Your task to perform on an android device: toggle priority inbox in the gmail app Image 0: 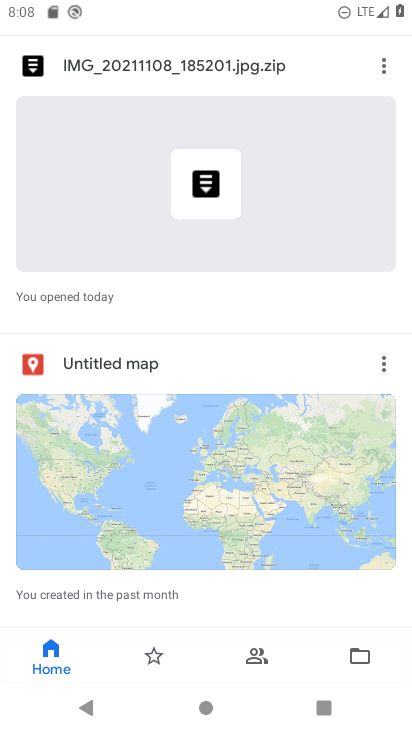
Step 0: drag from (202, 652) to (409, 241)
Your task to perform on an android device: toggle priority inbox in the gmail app Image 1: 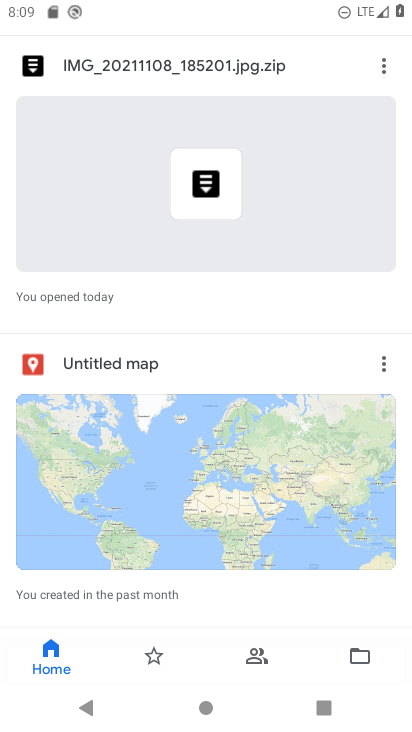
Step 1: drag from (67, 109) to (317, 634)
Your task to perform on an android device: toggle priority inbox in the gmail app Image 2: 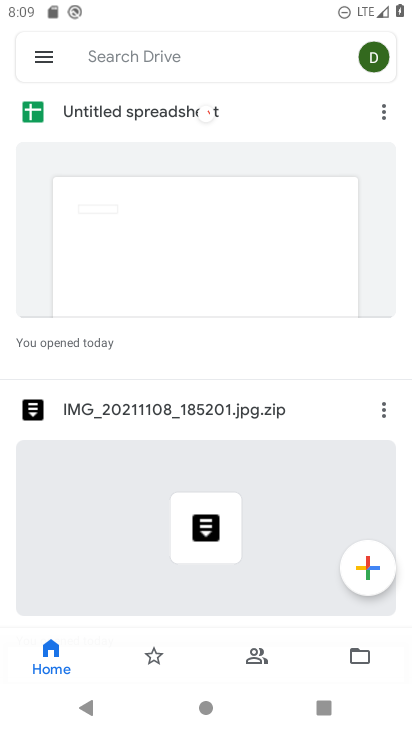
Step 2: press home button
Your task to perform on an android device: toggle priority inbox in the gmail app Image 3: 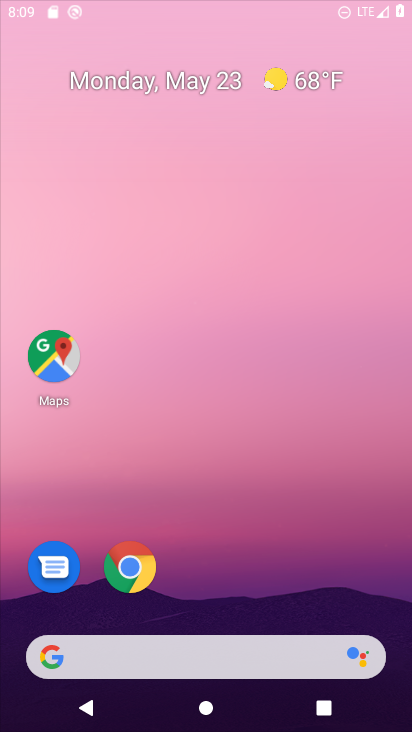
Step 3: drag from (223, 575) to (408, 120)
Your task to perform on an android device: toggle priority inbox in the gmail app Image 4: 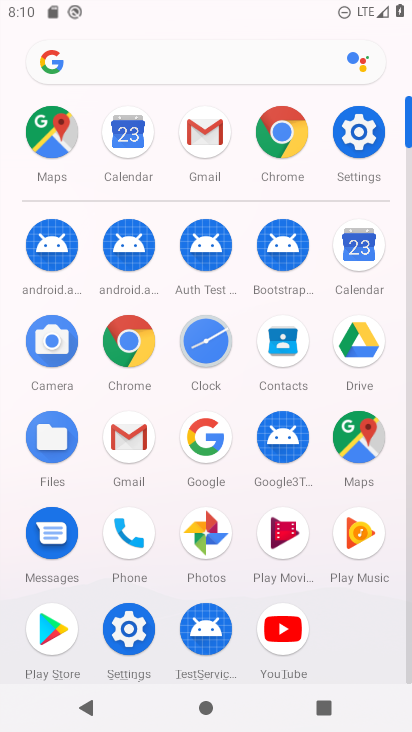
Step 4: click (118, 432)
Your task to perform on an android device: toggle priority inbox in the gmail app Image 5: 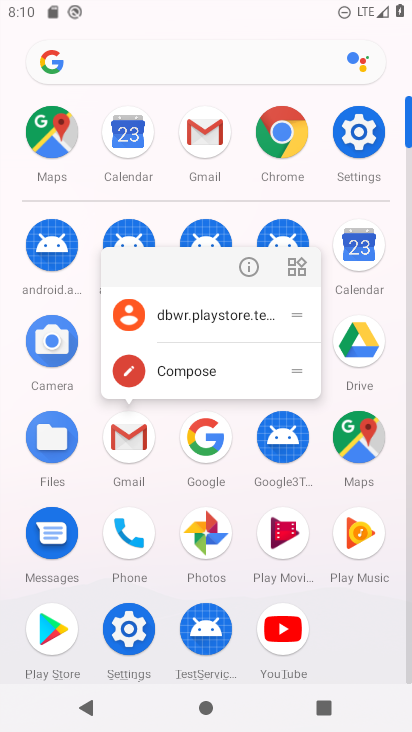
Step 5: click (190, 304)
Your task to perform on an android device: toggle priority inbox in the gmail app Image 6: 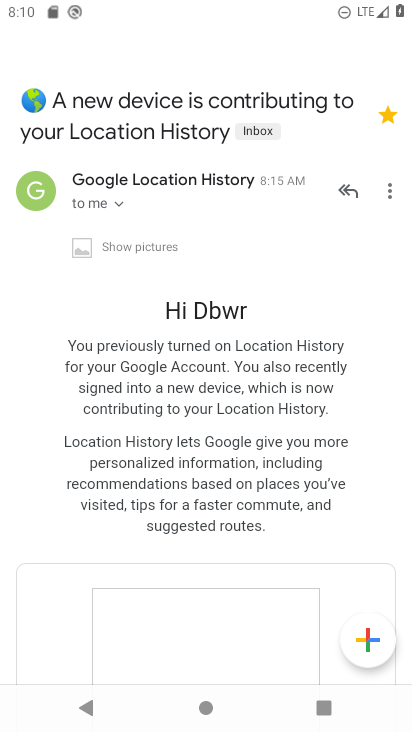
Step 6: drag from (116, 167) to (171, 439)
Your task to perform on an android device: toggle priority inbox in the gmail app Image 7: 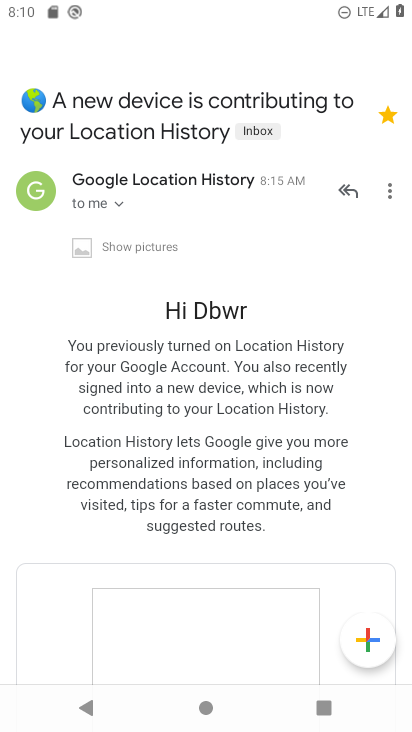
Step 7: press back button
Your task to perform on an android device: toggle priority inbox in the gmail app Image 8: 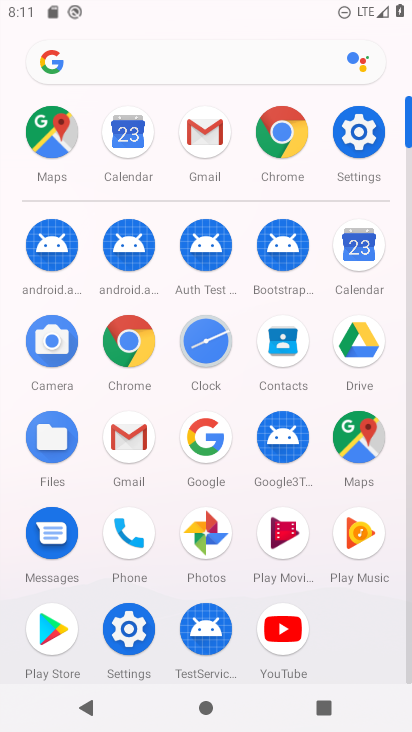
Step 8: click (140, 453)
Your task to perform on an android device: toggle priority inbox in the gmail app Image 9: 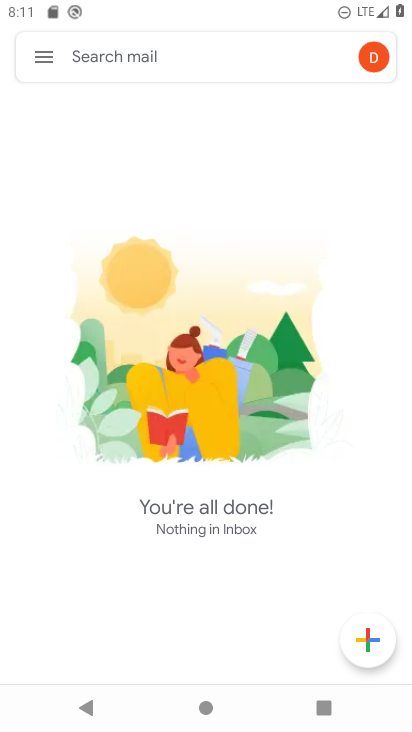
Step 9: click (35, 55)
Your task to perform on an android device: toggle priority inbox in the gmail app Image 10: 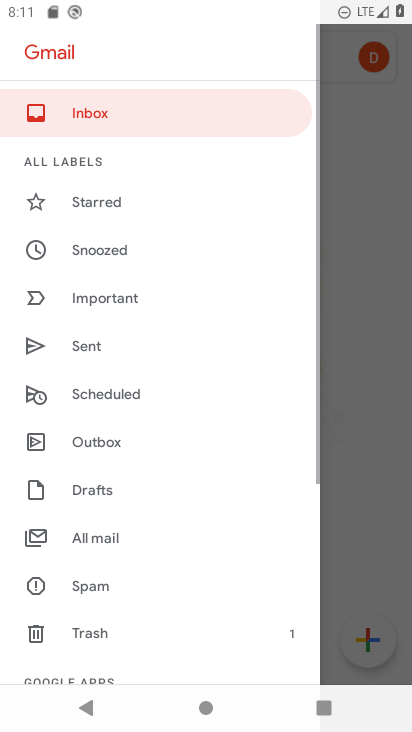
Step 10: drag from (156, 648) to (277, 72)
Your task to perform on an android device: toggle priority inbox in the gmail app Image 11: 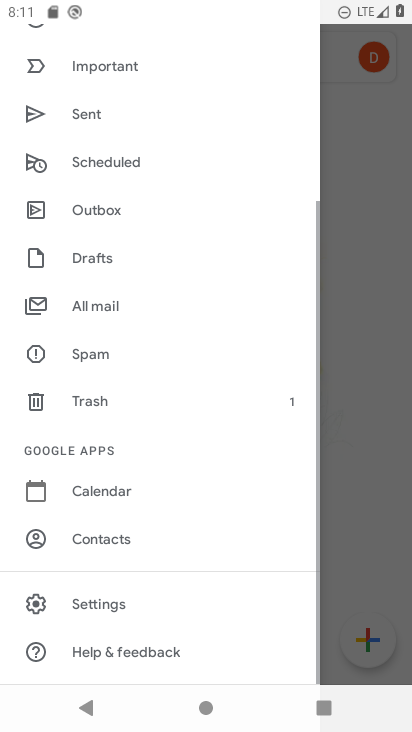
Step 11: click (58, 617)
Your task to perform on an android device: toggle priority inbox in the gmail app Image 12: 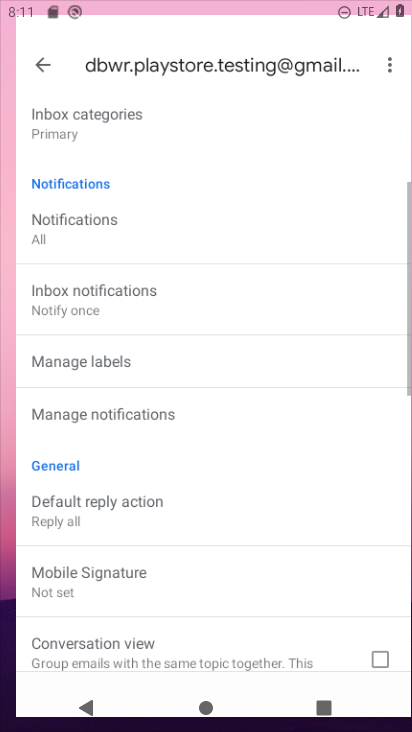
Step 12: drag from (66, 603) to (237, 189)
Your task to perform on an android device: toggle priority inbox in the gmail app Image 13: 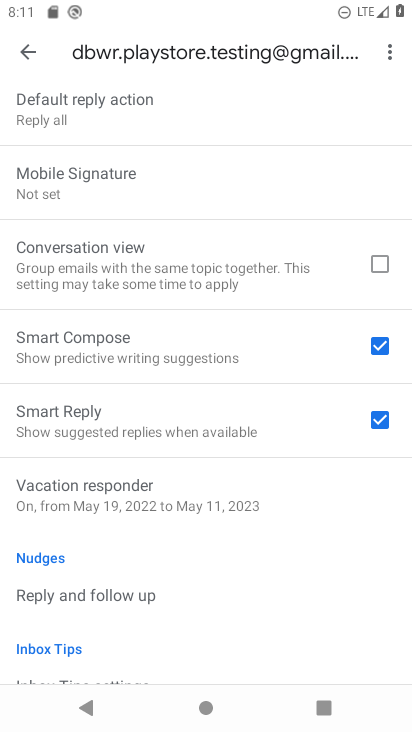
Step 13: drag from (285, 196) to (292, 731)
Your task to perform on an android device: toggle priority inbox in the gmail app Image 14: 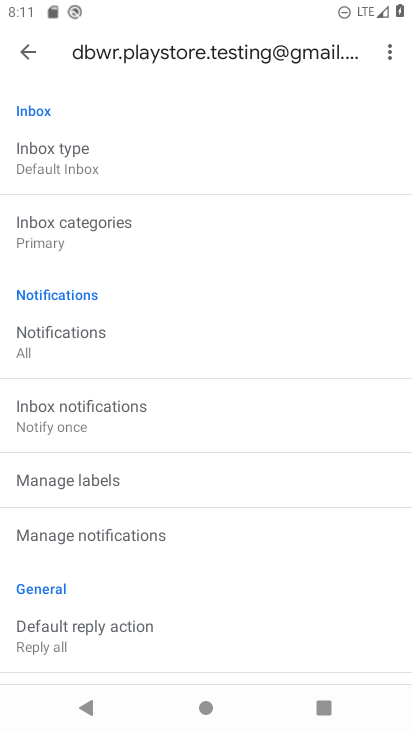
Step 14: click (105, 230)
Your task to perform on an android device: toggle priority inbox in the gmail app Image 15: 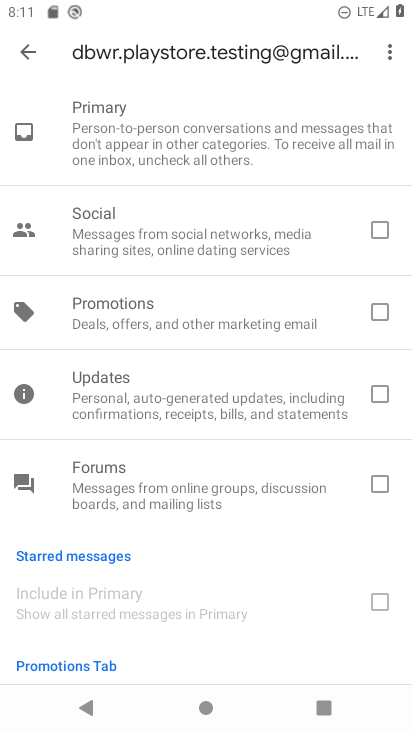
Step 15: click (19, 35)
Your task to perform on an android device: toggle priority inbox in the gmail app Image 16: 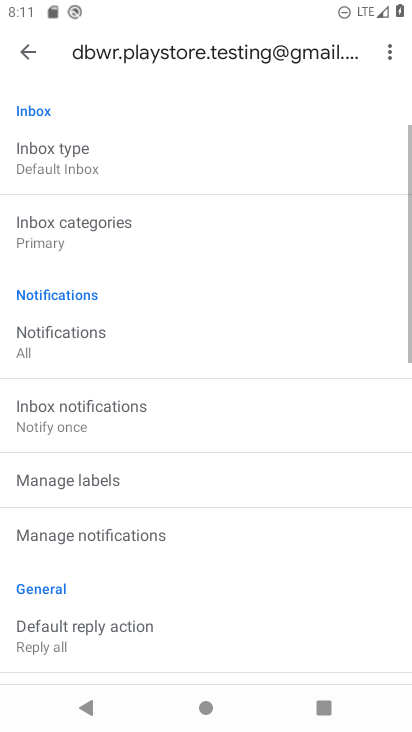
Step 16: drag from (189, 189) to (261, 671)
Your task to perform on an android device: toggle priority inbox in the gmail app Image 17: 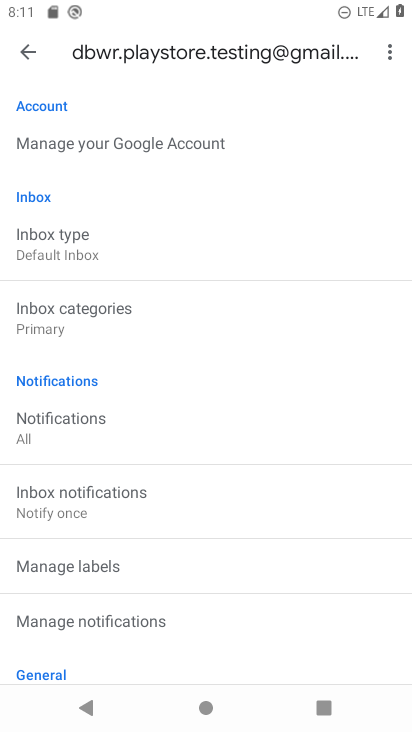
Step 17: click (130, 229)
Your task to perform on an android device: toggle priority inbox in the gmail app Image 18: 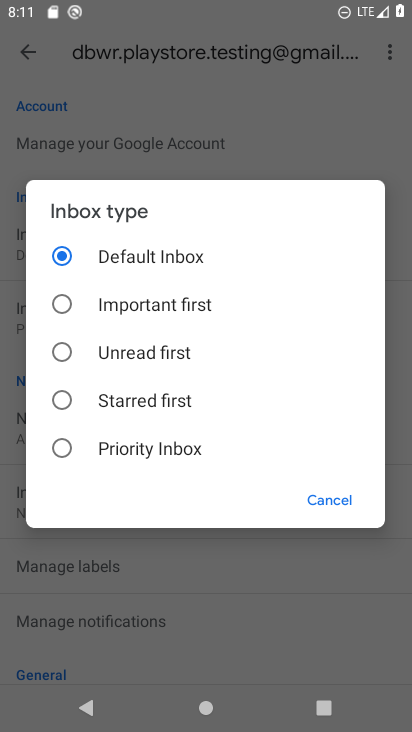
Step 18: click (114, 452)
Your task to perform on an android device: toggle priority inbox in the gmail app Image 19: 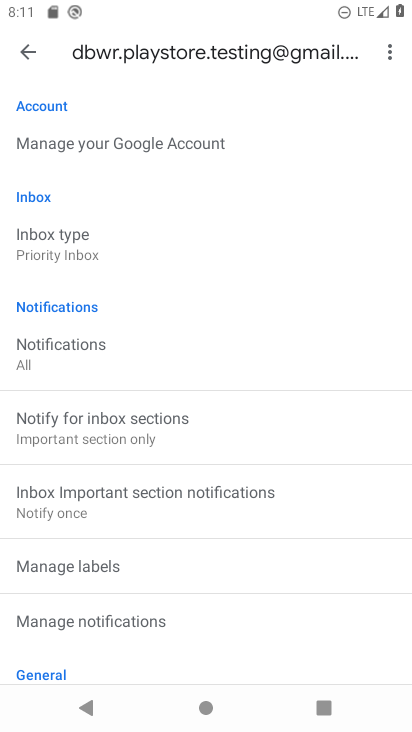
Step 19: task complete